Your task to perform on an android device: Open privacy settings Image 0: 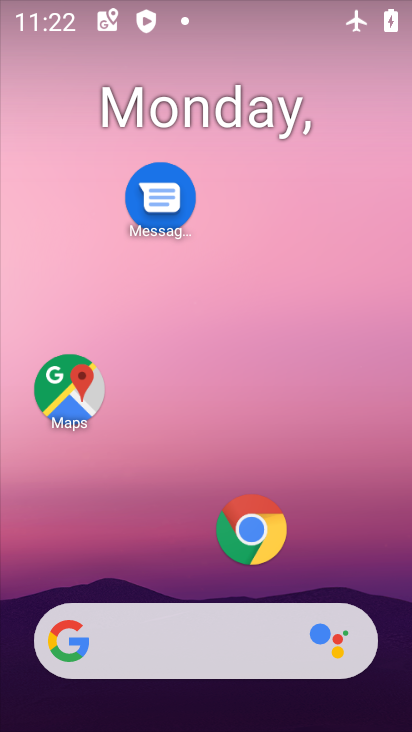
Step 0: drag from (169, 548) to (247, 112)
Your task to perform on an android device: Open privacy settings Image 1: 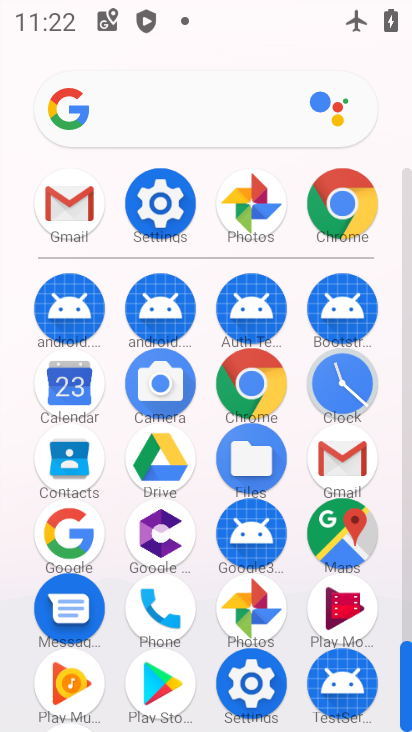
Step 1: click (265, 689)
Your task to perform on an android device: Open privacy settings Image 2: 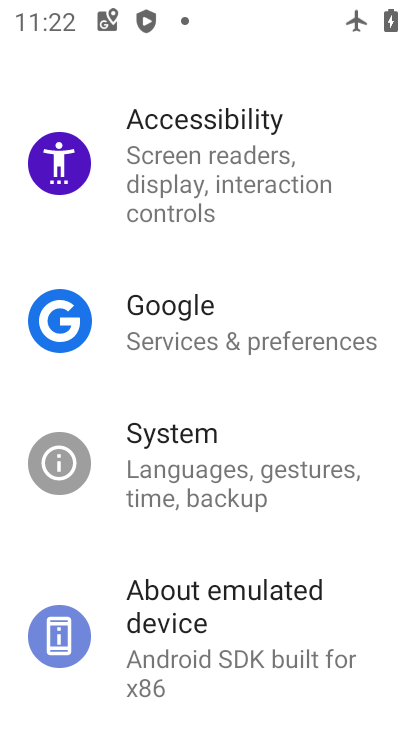
Step 2: drag from (254, 408) to (197, 704)
Your task to perform on an android device: Open privacy settings Image 3: 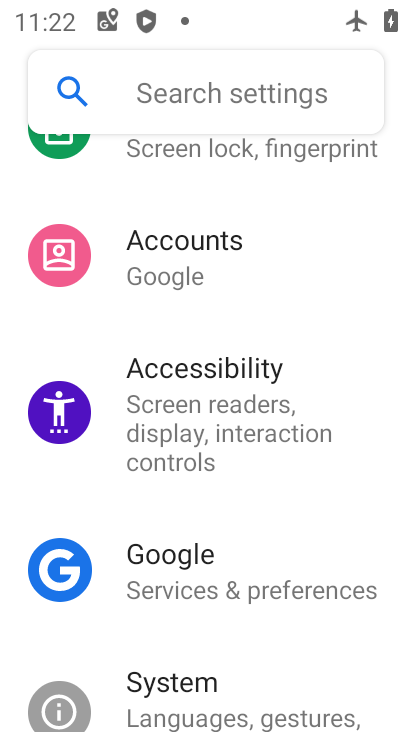
Step 3: drag from (210, 312) to (205, 647)
Your task to perform on an android device: Open privacy settings Image 4: 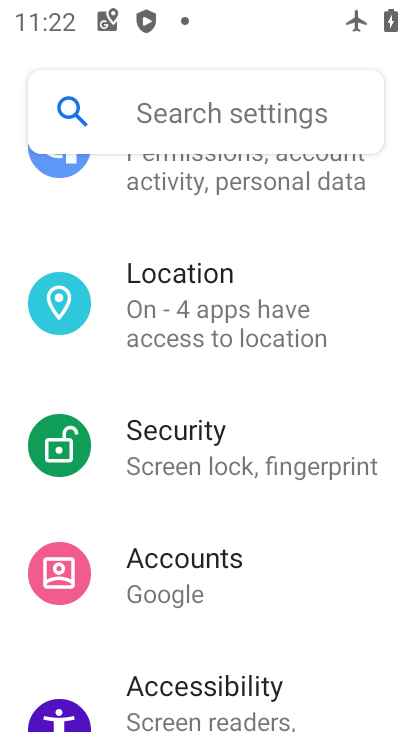
Step 4: drag from (214, 335) to (240, 677)
Your task to perform on an android device: Open privacy settings Image 5: 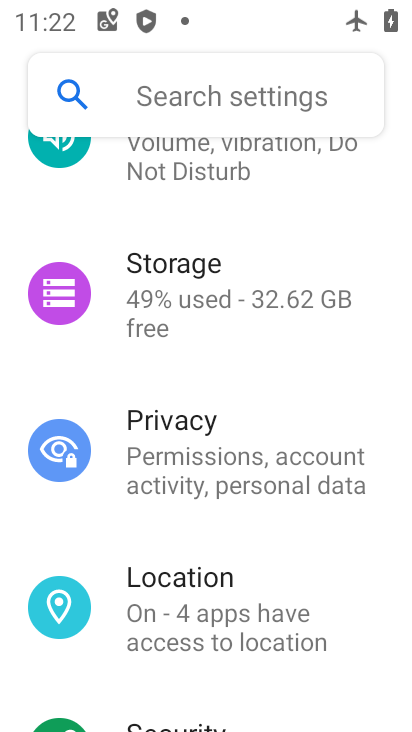
Step 5: click (216, 477)
Your task to perform on an android device: Open privacy settings Image 6: 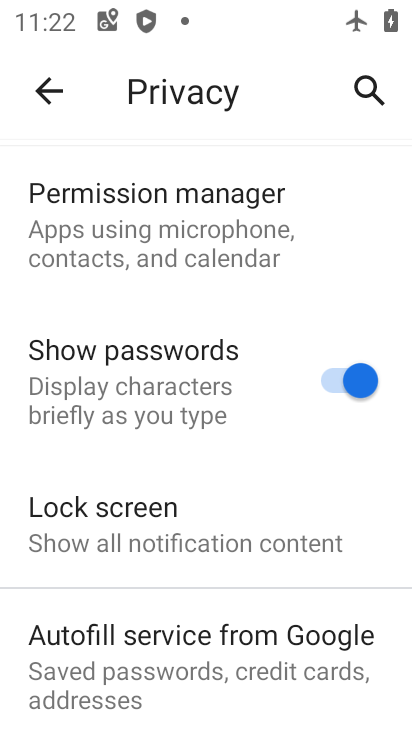
Step 6: task complete